Your task to perform on an android device: Go to internet settings Image 0: 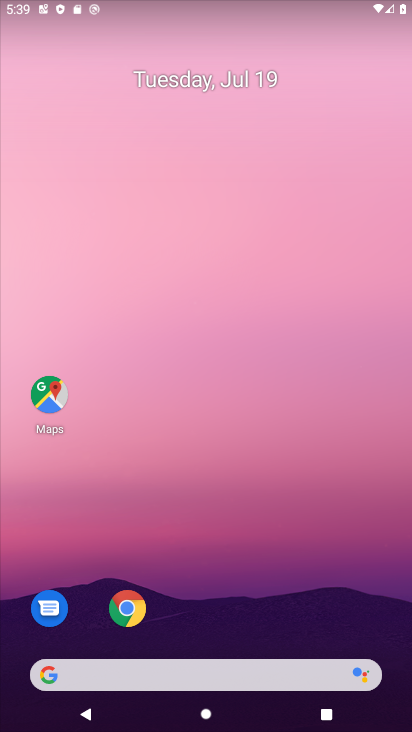
Step 0: drag from (203, 675) to (274, 77)
Your task to perform on an android device: Go to internet settings Image 1: 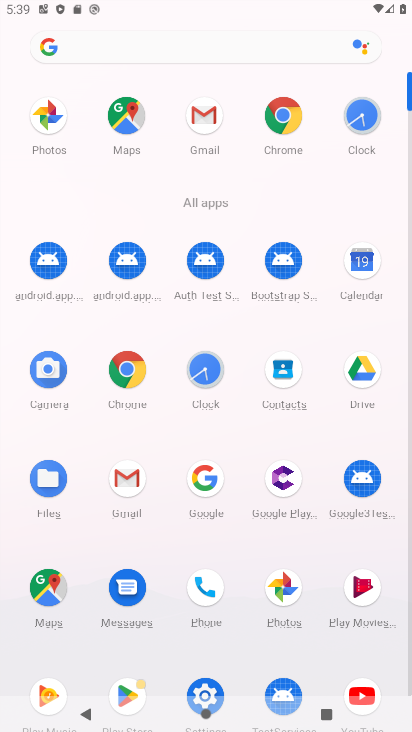
Step 1: click (203, 684)
Your task to perform on an android device: Go to internet settings Image 2: 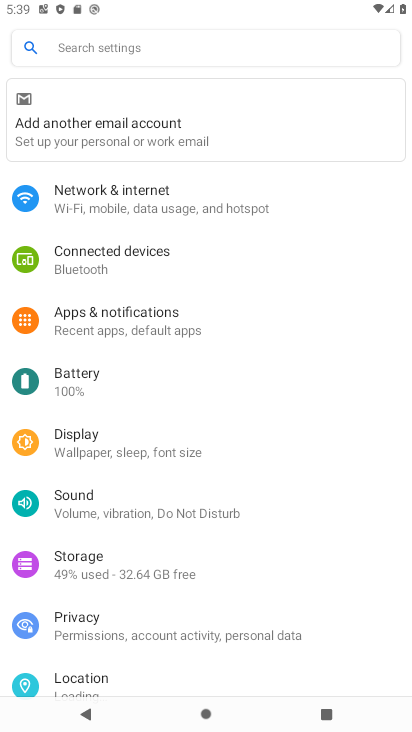
Step 2: click (175, 199)
Your task to perform on an android device: Go to internet settings Image 3: 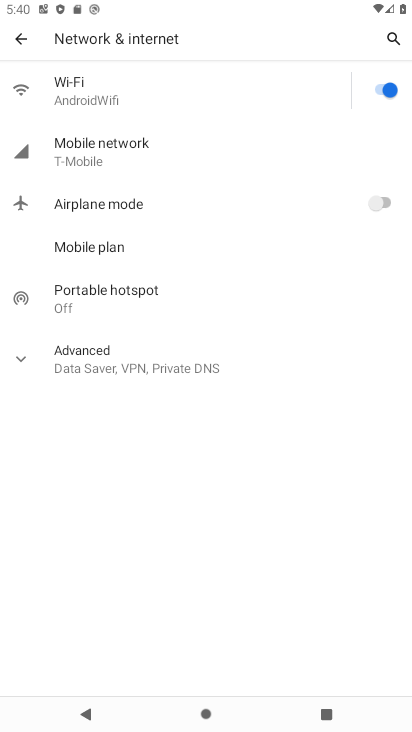
Step 3: click (181, 156)
Your task to perform on an android device: Go to internet settings Image 4: 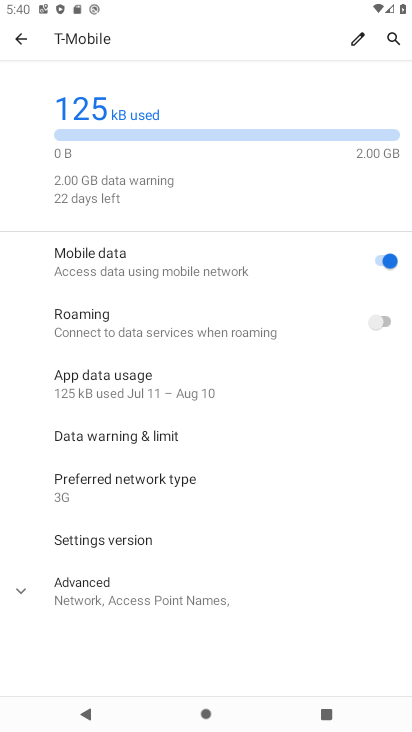
Step 4: task complete